Your task to perform on an android device: Open Google Chrome Image 0: 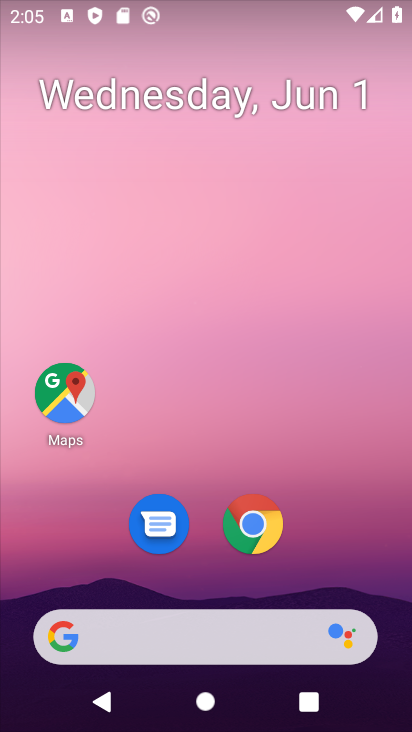
Step 0: click (264, 518)
Your task to perform on an android device: Open Google Chrome Image 1: 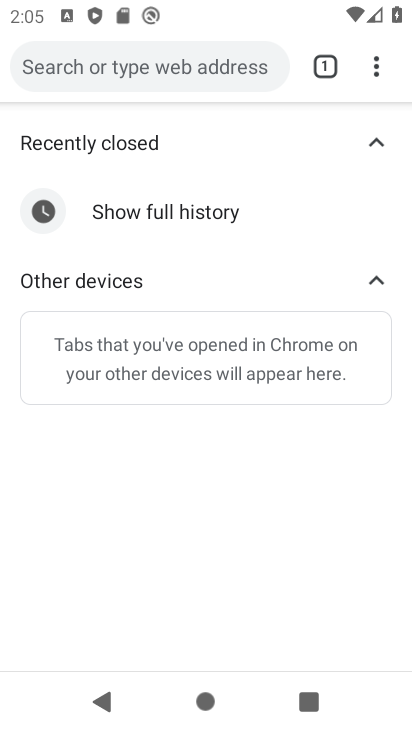
Step 1: click (368, 70)
Your task to perform on an android device: Open Google Chrome Image 2: 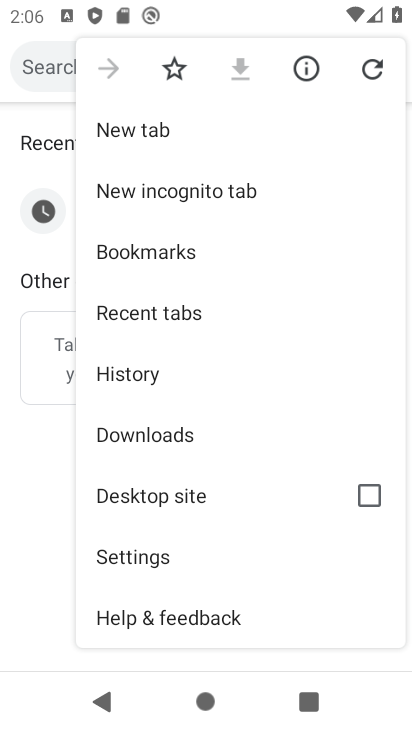
Step 2: click (299, 119)
Your task to perform on an android device: Open Google Chrome Image 3: 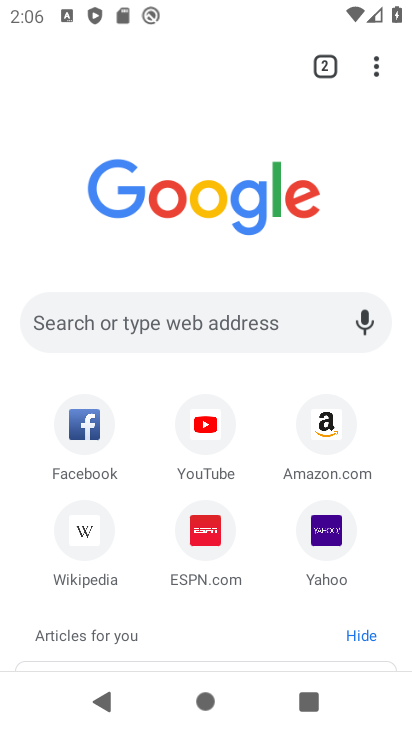
Step 3: task complete